Your task to perform on an android device: open app "McDonald's" Image 0: 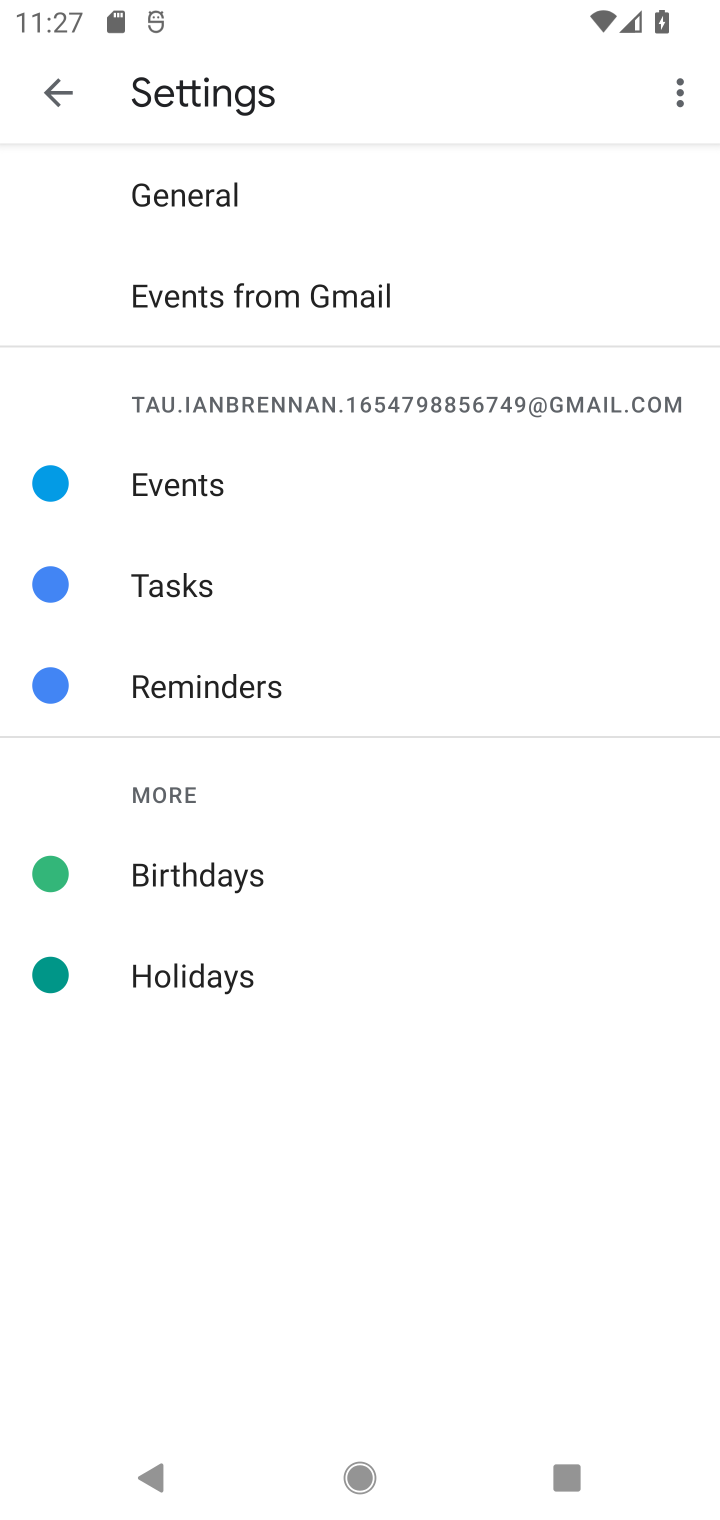
Step 0: press home button
Your task to perform on an android device: open app "McDonald's" Image 1: 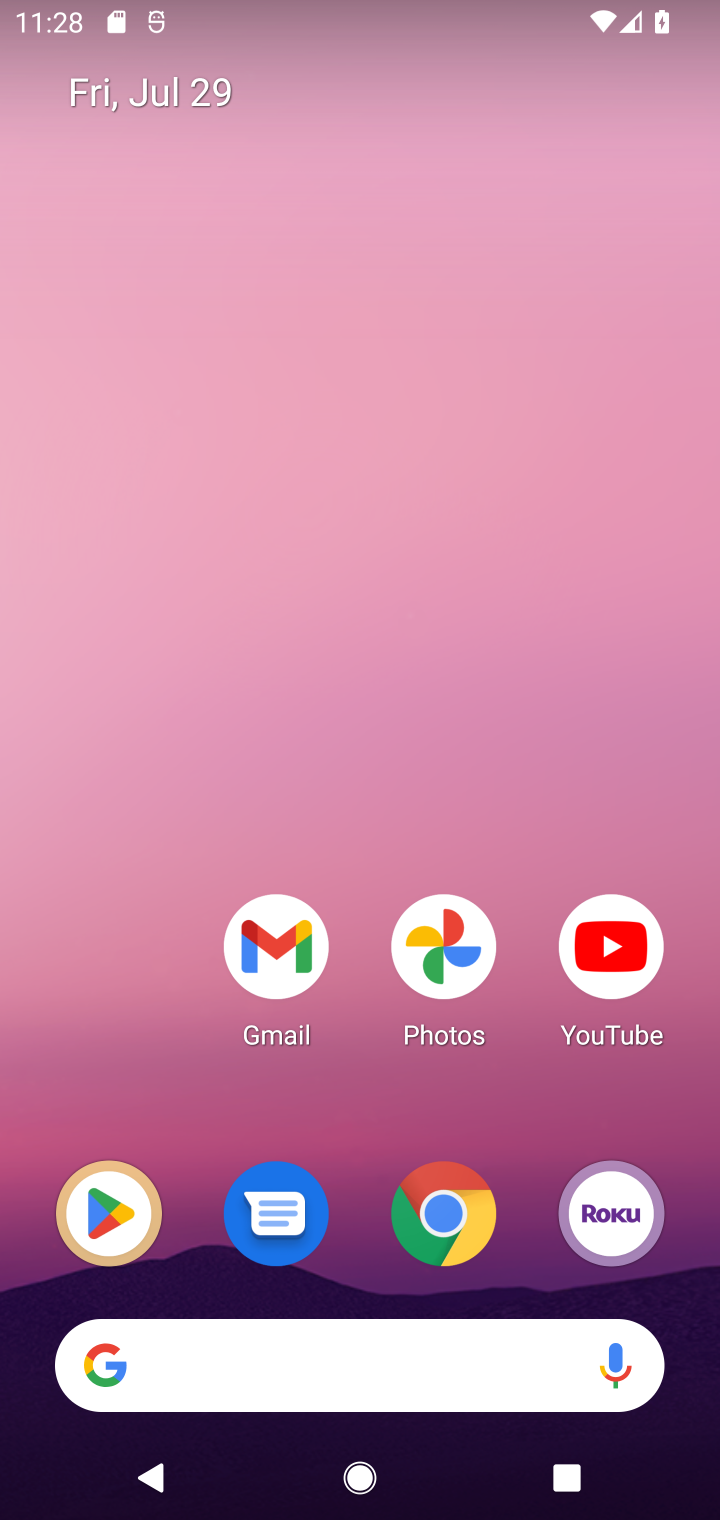
Step 1: click (90, 1211)
Your task to perform on an android device: open app "McDonald's" Image 2: 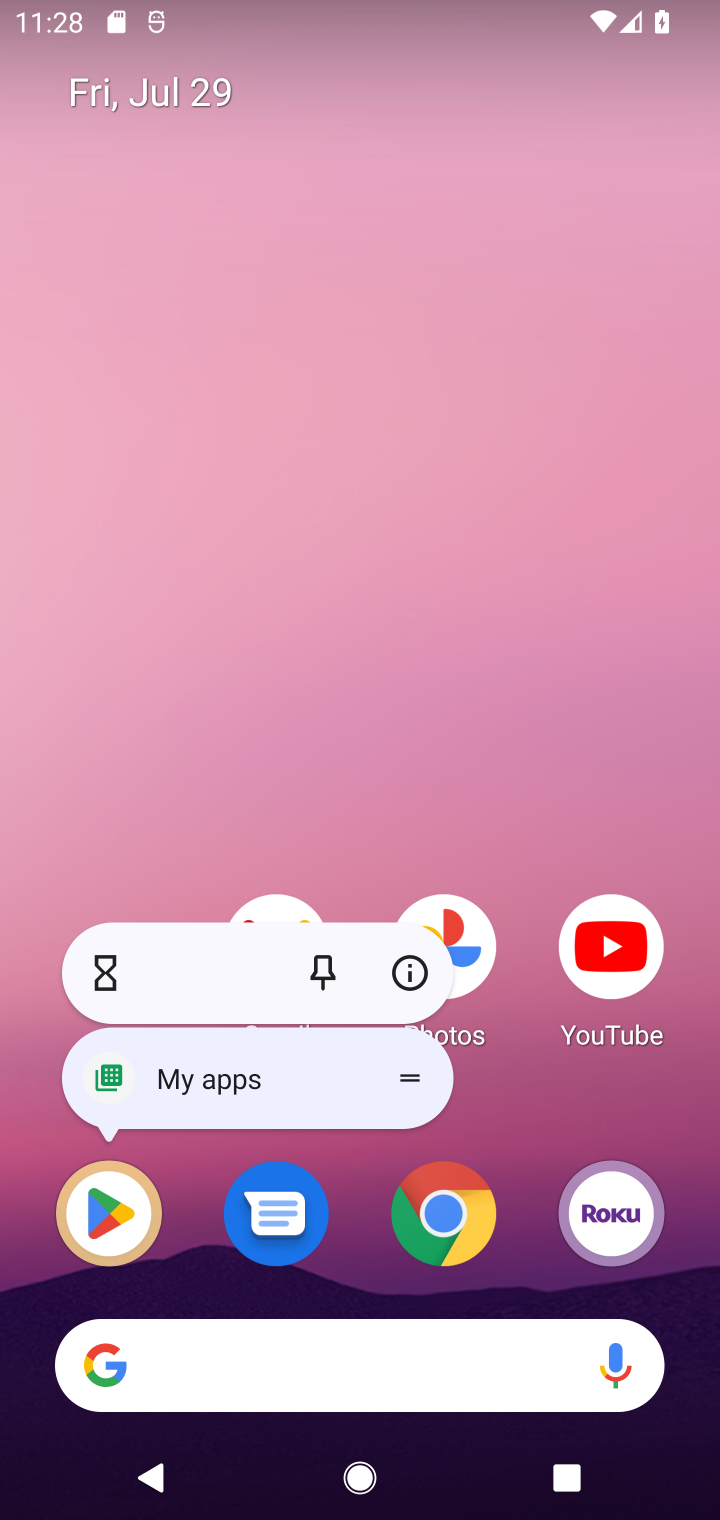
Step 2: click (534, 560)
Your task to perform on an android device: open app "McDonald's" Image 3: 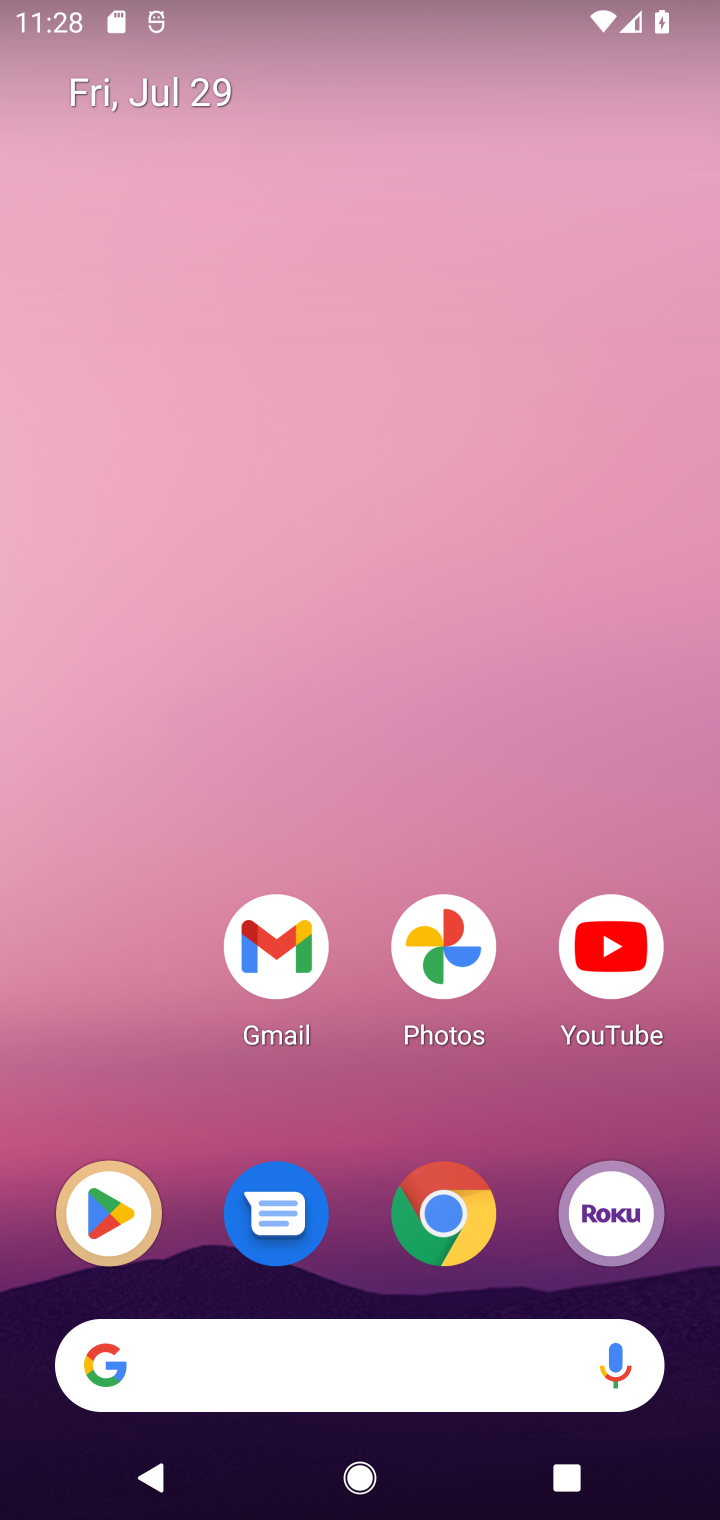
Step 3: drag from (375, 913) to (361, 420)
Your task to perform on an android device: open app "McDonald's" Image 4: 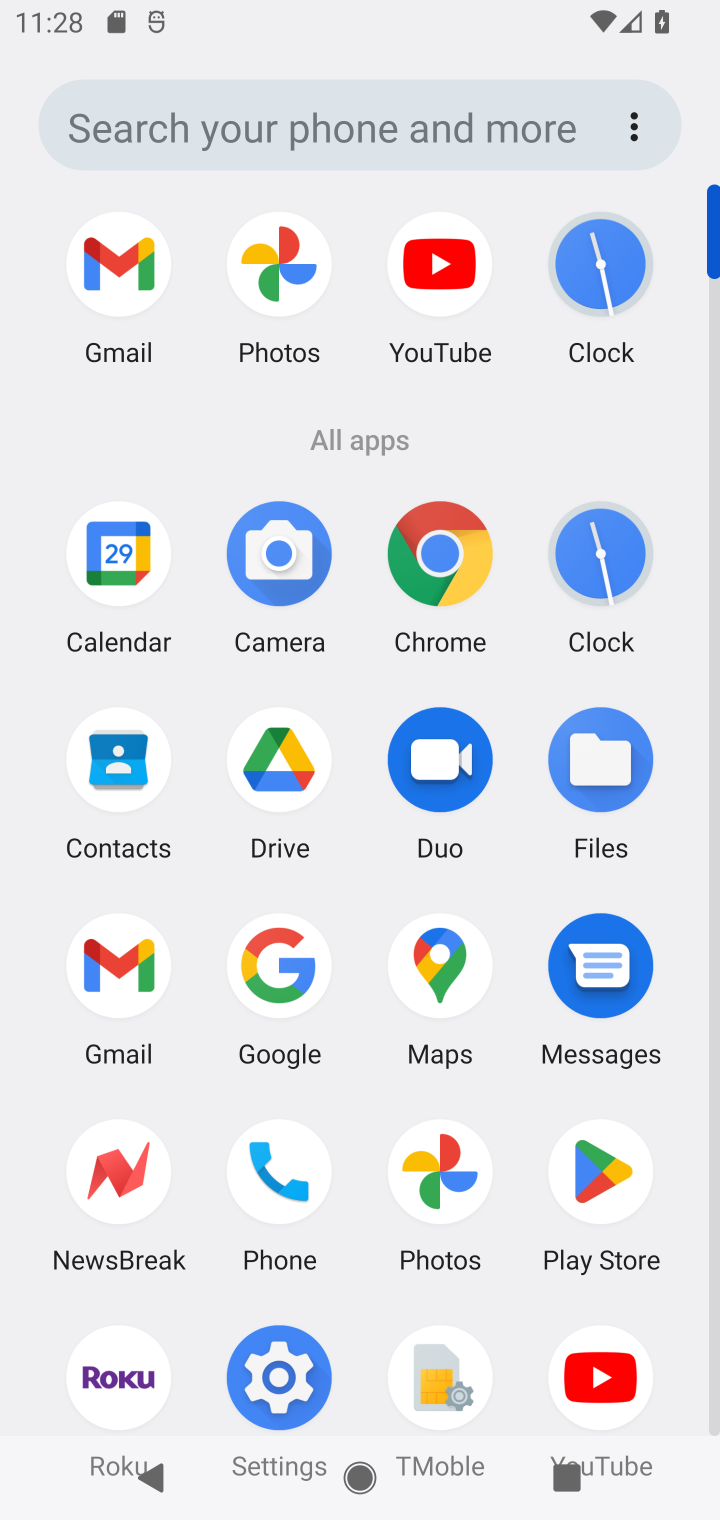
Step 4: click (597, 1166)
Your task to perform on an android device: open app "McDonald's" Image 5: 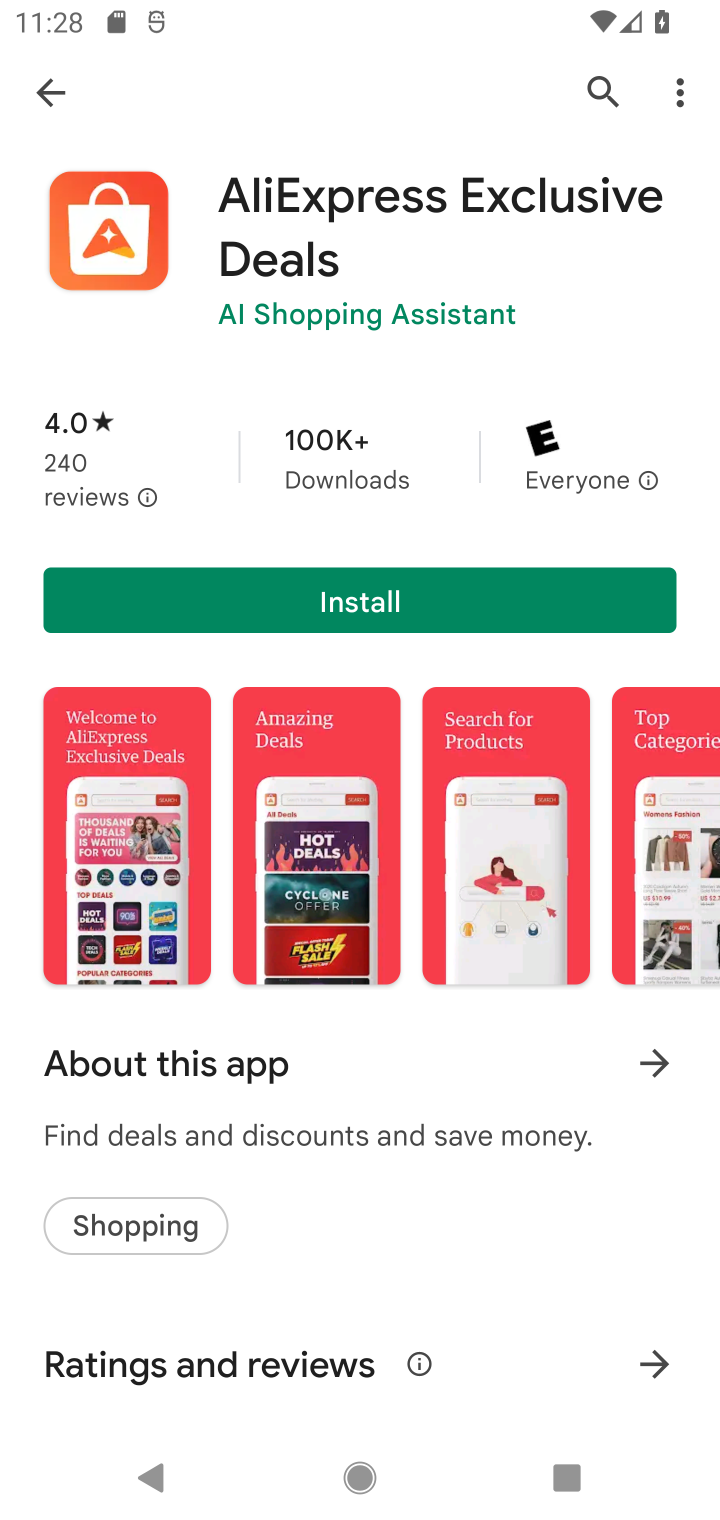
Step 5: click (590, 94)
Your task to perform on an android device: open app "McDonald's" Image 6: 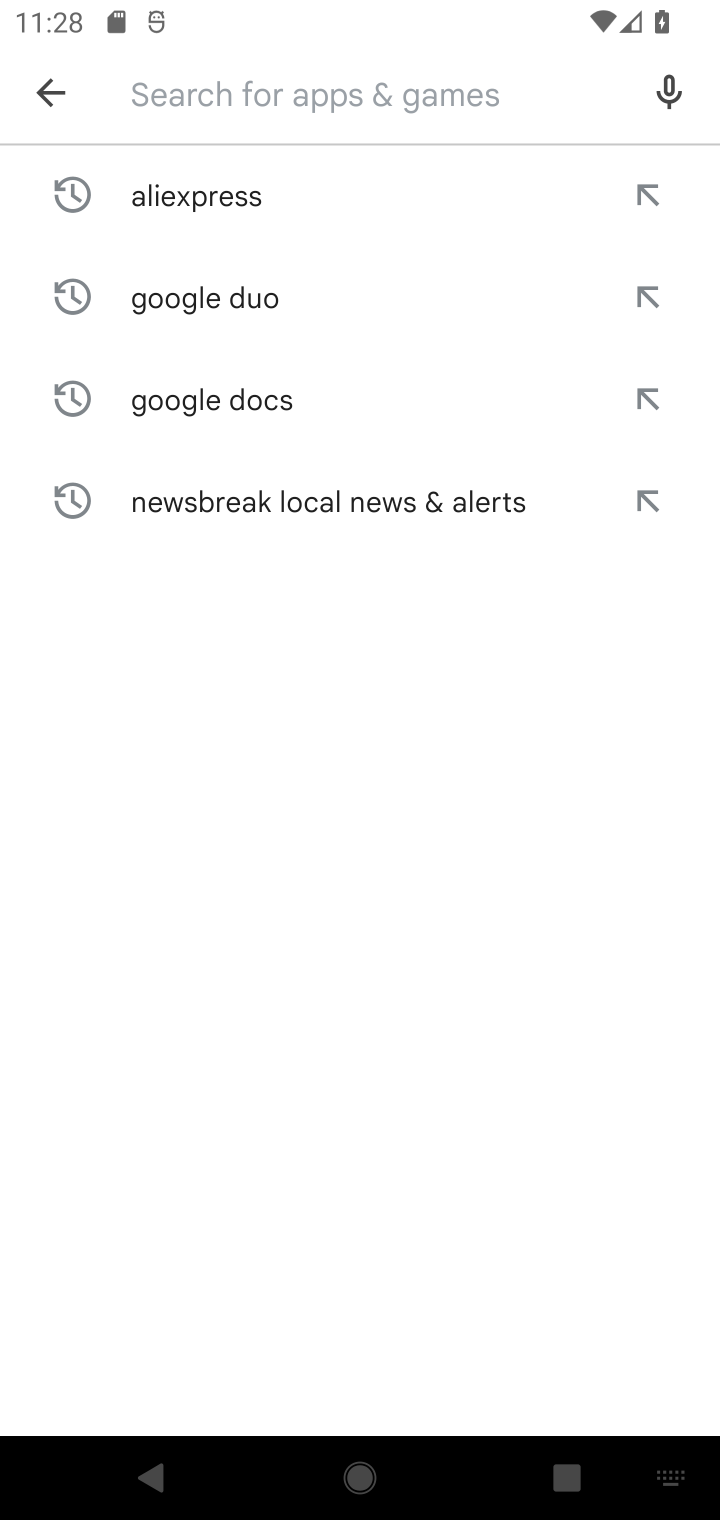
Step 6: type "McDonald's"
Your task to perform on an android device: open app "McDonald's" Image 7: 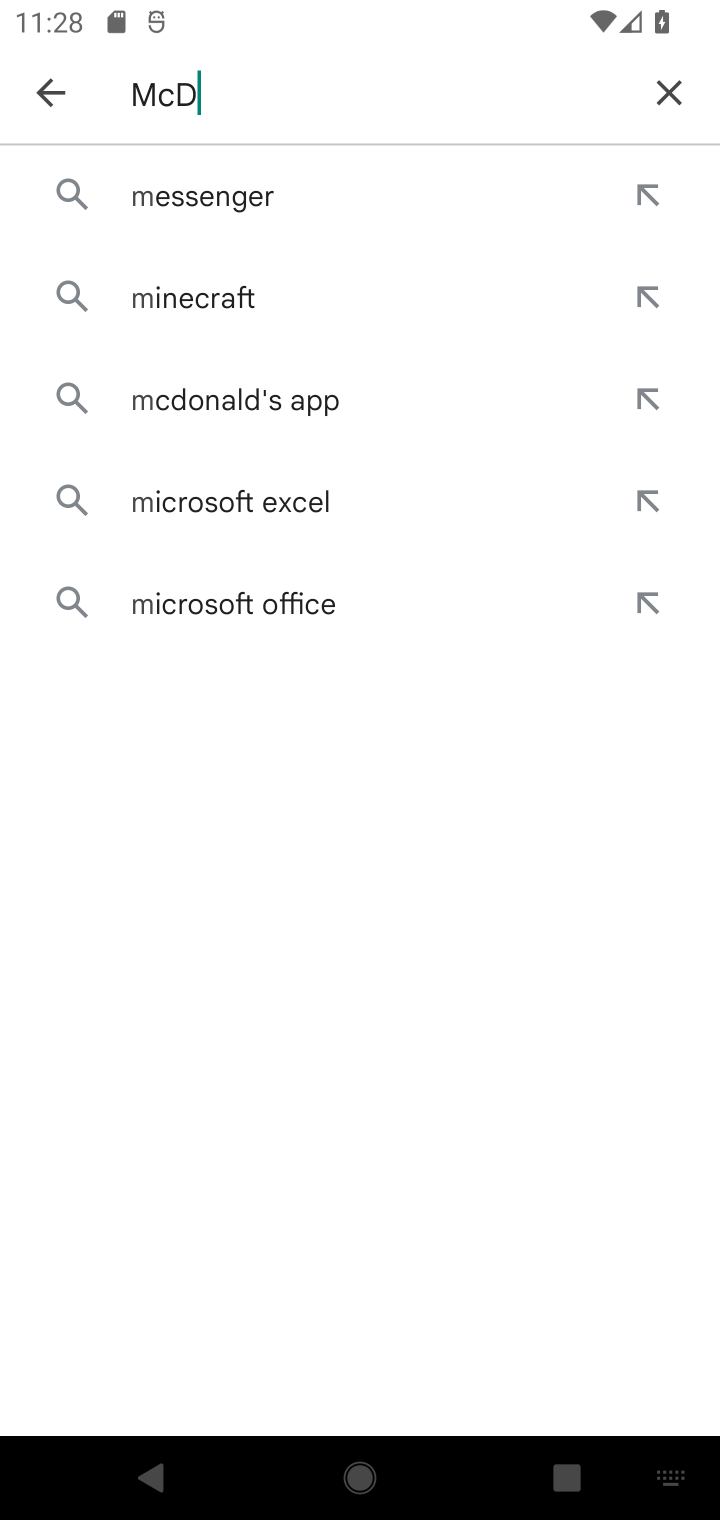
Step 7: type ""
Your task to perform on an android device: open app "McDonald's" Image 8: 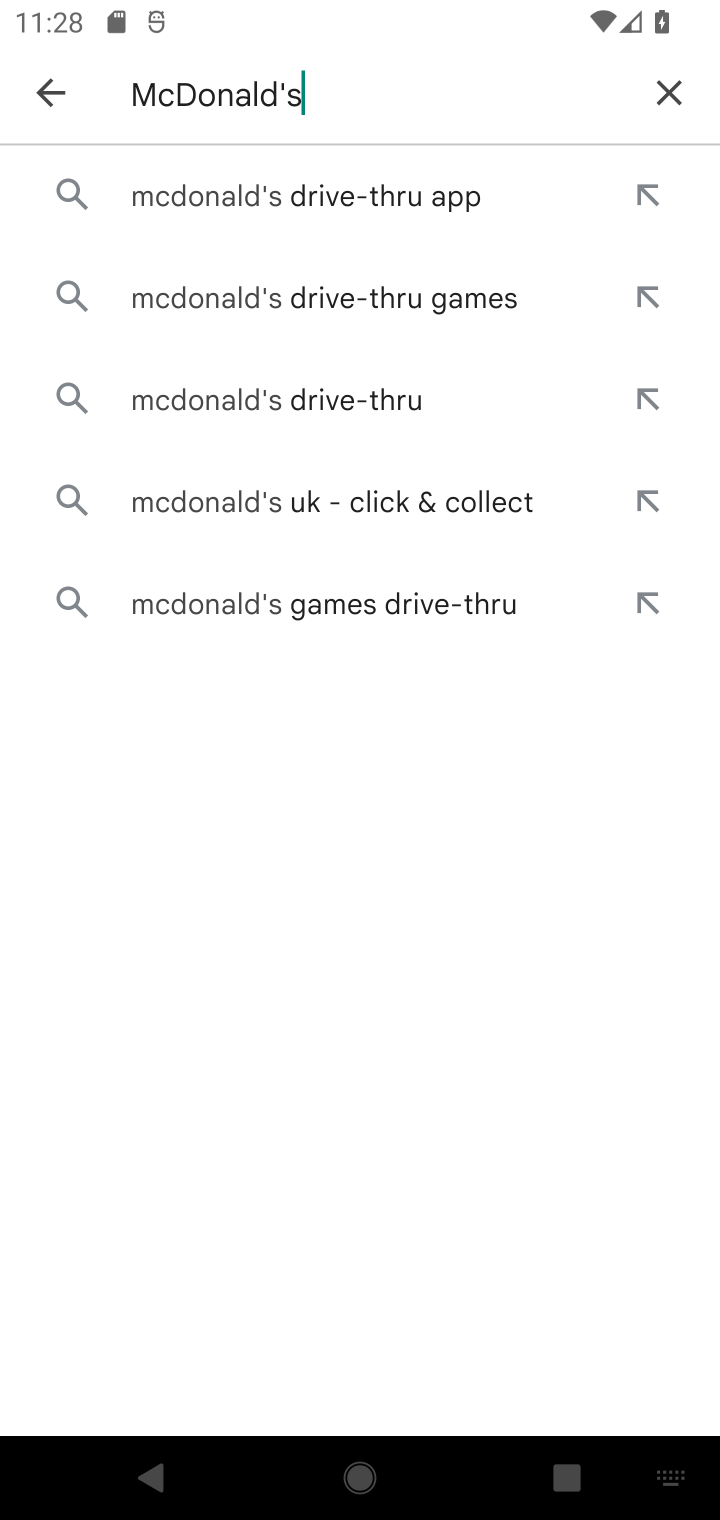
Step 8: click (350, 196)
Your task to perform on an android device: open app "McDonald's" Image 9: 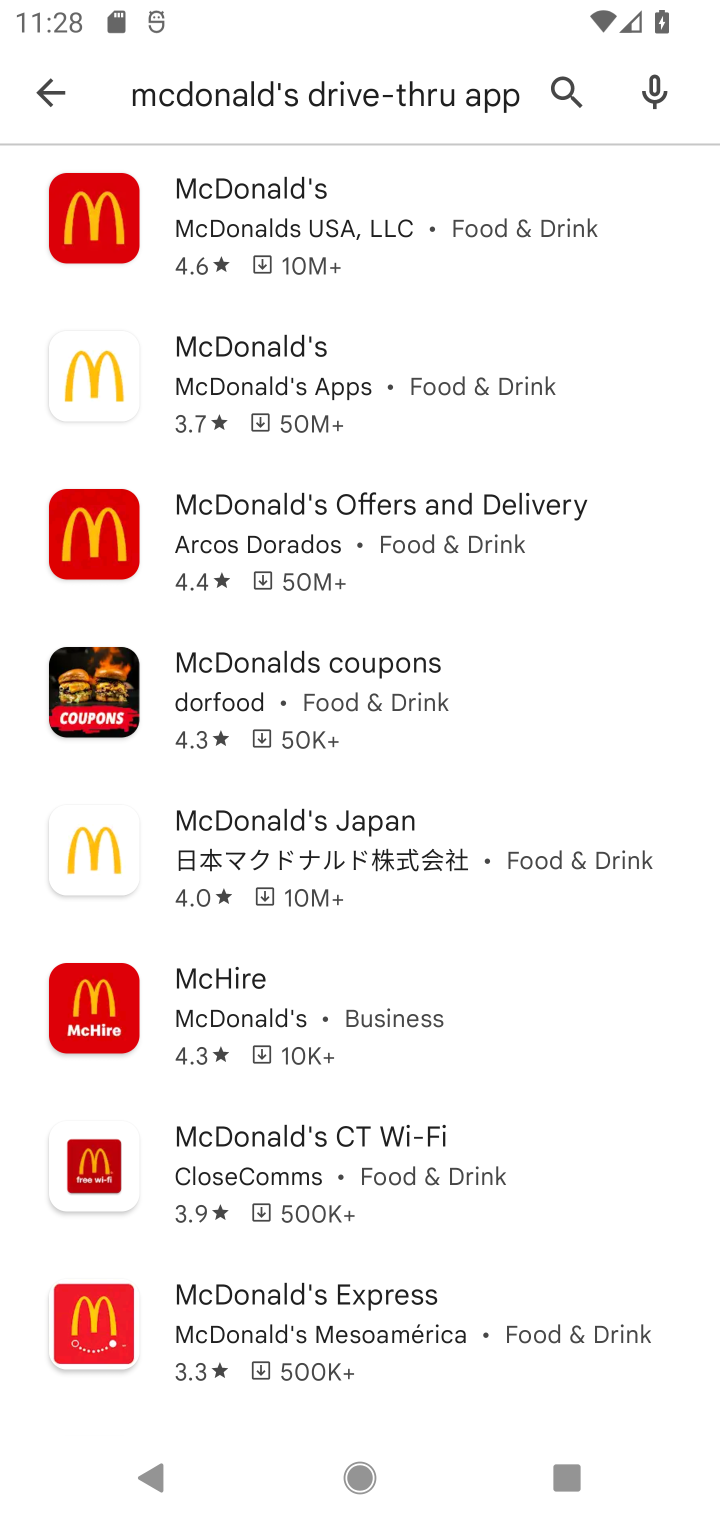
Step 9: click (353, 206)
Your task to perform on an android device: open app "McDonald's" Image 10: 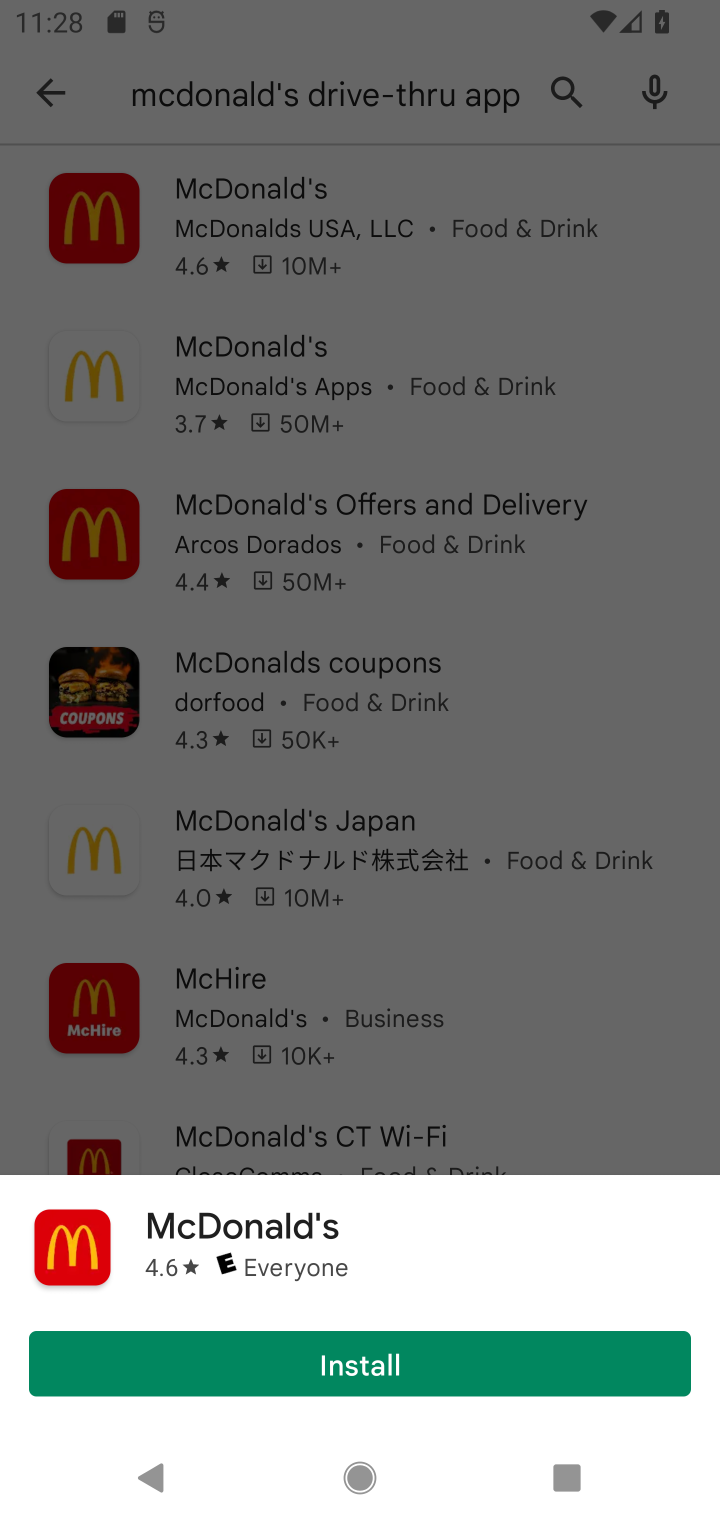
Step 10: task complete